Your task to perform on an android device: Search for hotels in Tokyo Image 0: 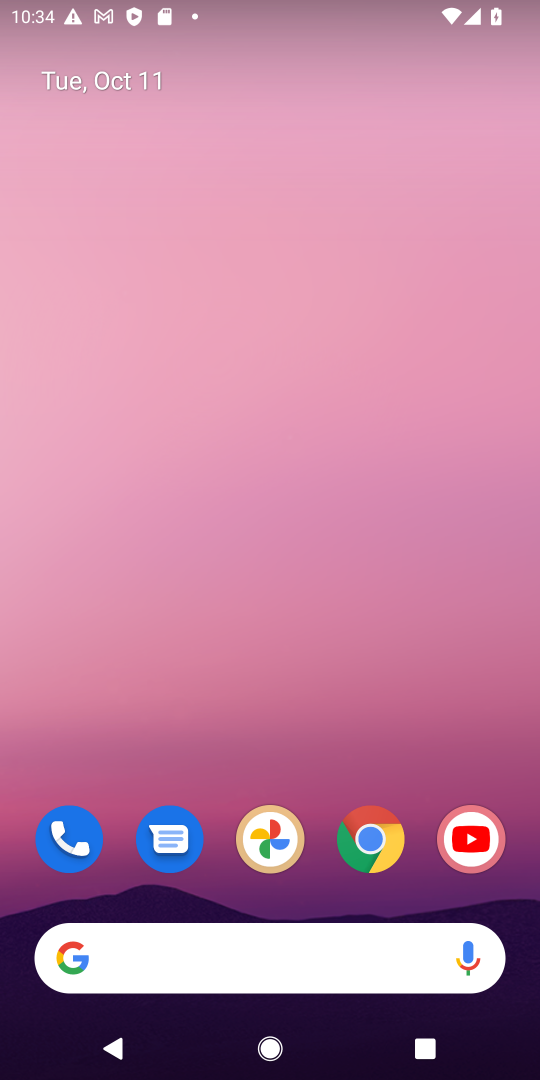
Step 0: drag from (265, 991) to (308, 390)
Your task to perform on an android device: Search for hotels in Tokyo Image 1: 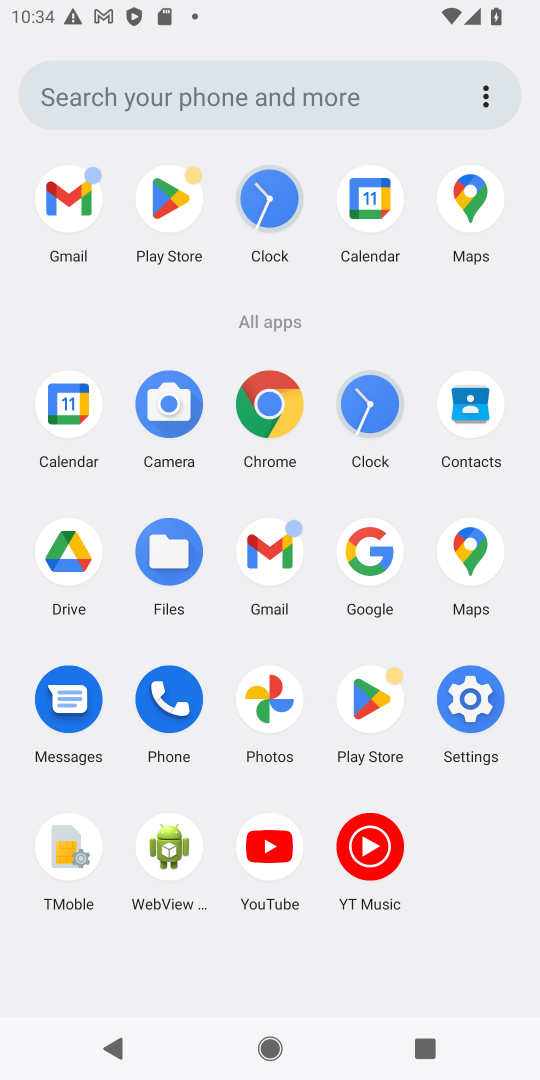
Step 1: click (360, 568)
Your task to perform on an android device: Search for hotels in Tokyo Image 2: 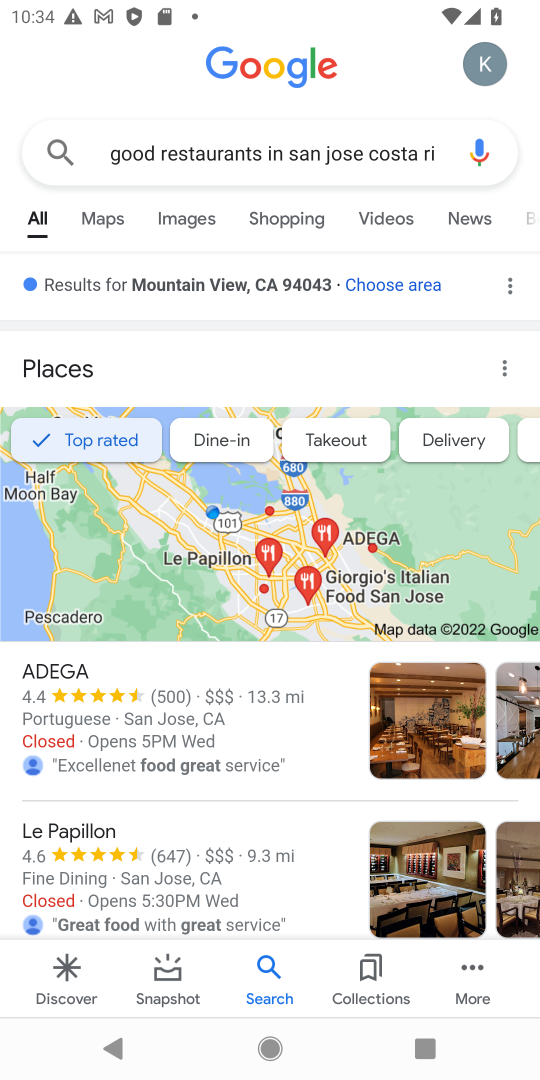
Step 2: click (347, 151)
Your task to perform on an android device: Search for hotels in Tokyo Image 3: 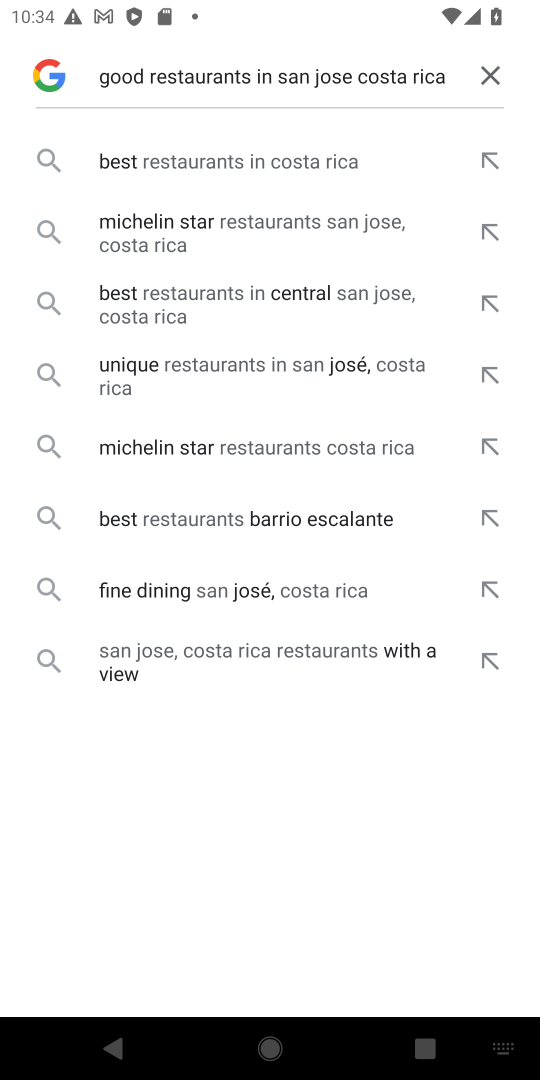
Step 3: click (497, 84)
Your task to perform on an android device: Search for hotels in Tokyo Image 4: 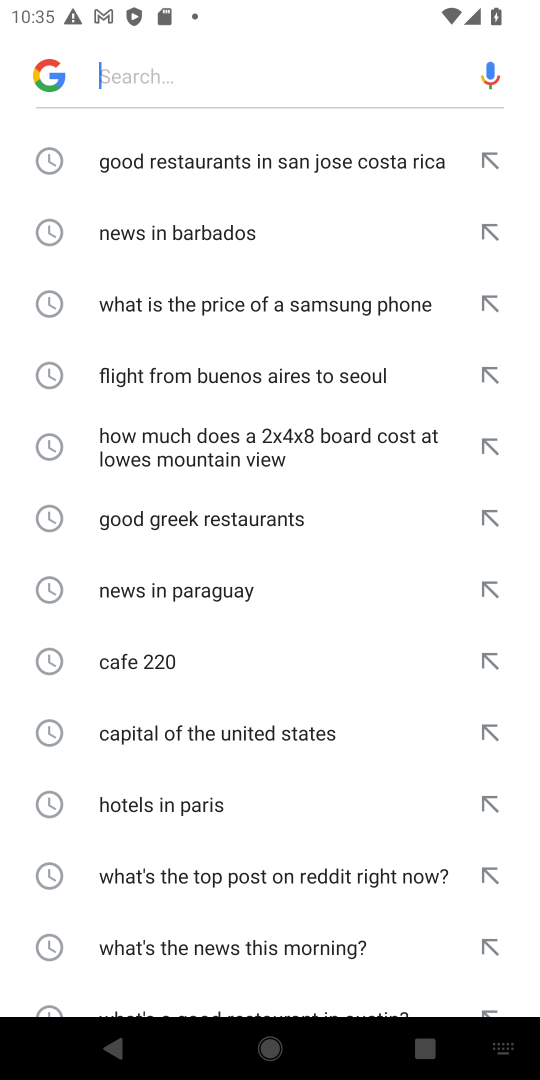
Step 4: type "hotels in Tokyo"
Your task to perform on an android device: Search for hotels in Tokyo Image 5: 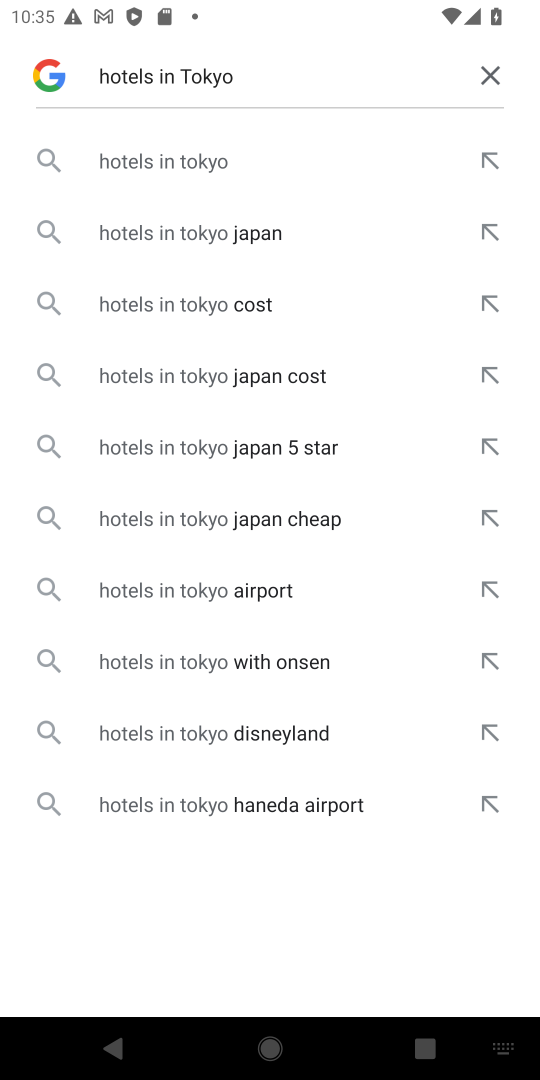
Step 5: click (230, 163)
Your task to perform on an android device: Search for hotels in Tokyo Image 6: 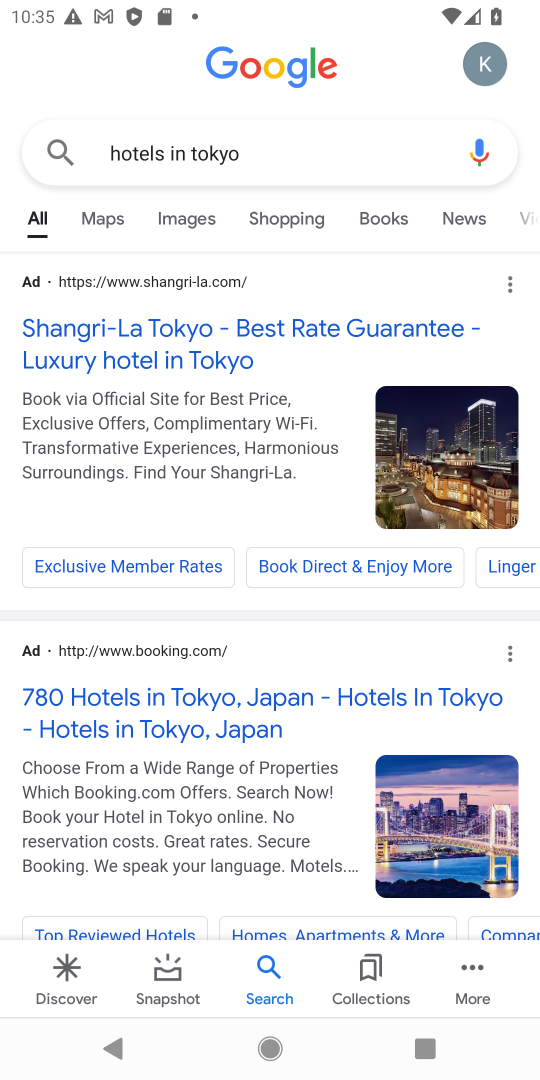
Step 6: task complete